Your task to perform on an android device: What's the weather going to be this weekend? Image 0: 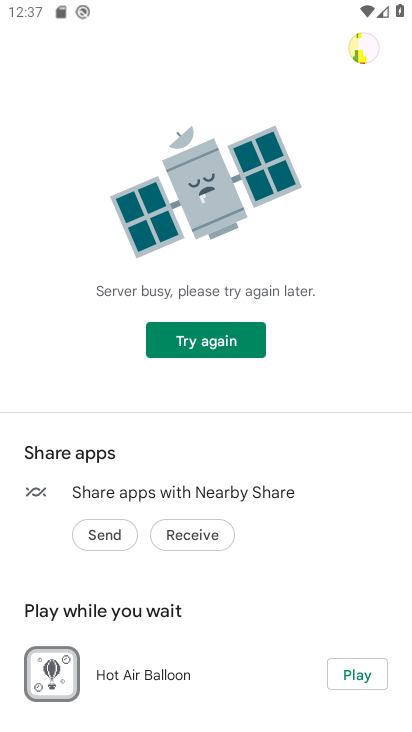
Step 0: press back button
Your task to perform on an android device: What's the weather going to be this weekend? Image 1: 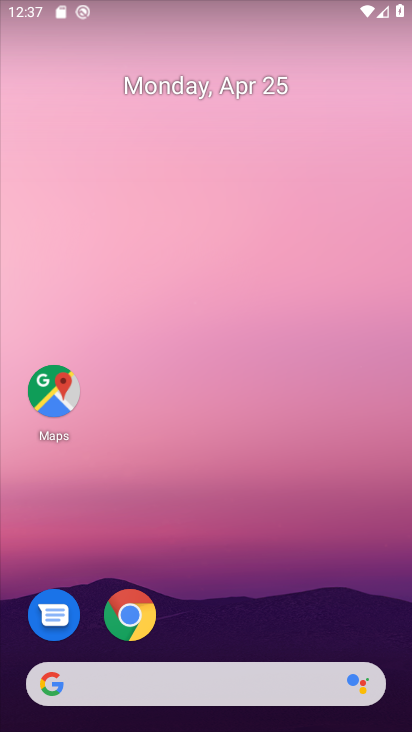
Step 1: drag from (1, 290) to (369, 281)
Your task to perform on an android device: What's the weather going to be this weekend? Image 2: 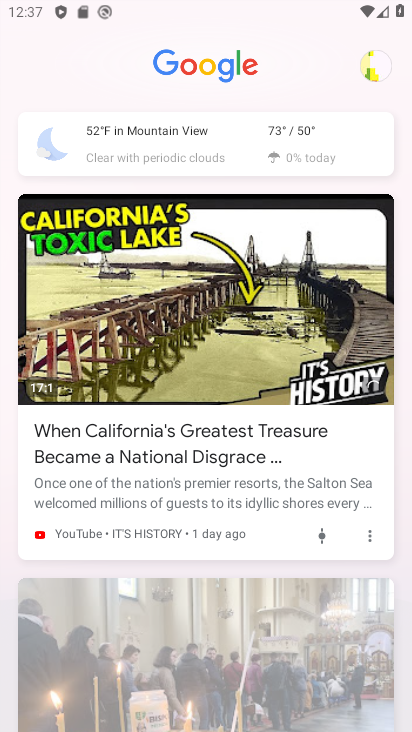
Step 2: click (268, 149)
Your task to perform on an android device: What's the weather going to be this weekend? Image 3: 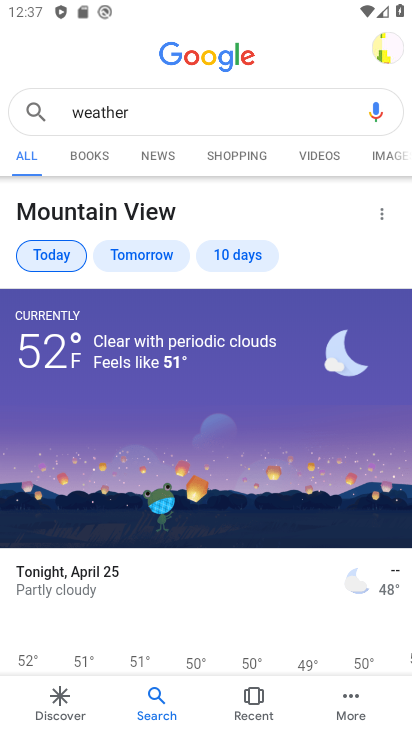
Step 3: click (229, 260)
Your task to perform on an android device: What's the weather going to be this weekend? Image 4: 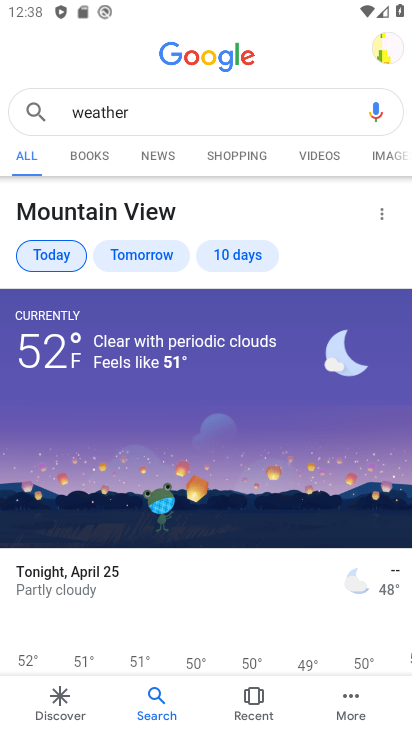
Step 4: click (168, 620)
Your task to perform on an android device: What's the weather going to be this weekend? Image 5: 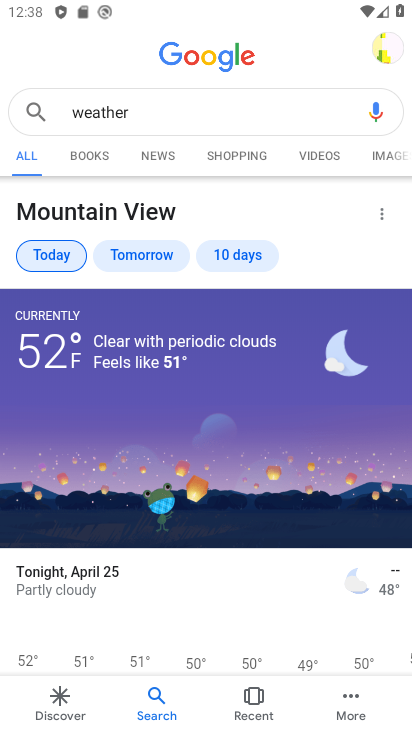
Step 5: drag from (182, 606) to (287, 198)
Your task to perform on an android device: What's the weather going to be this weekend? Image 6: 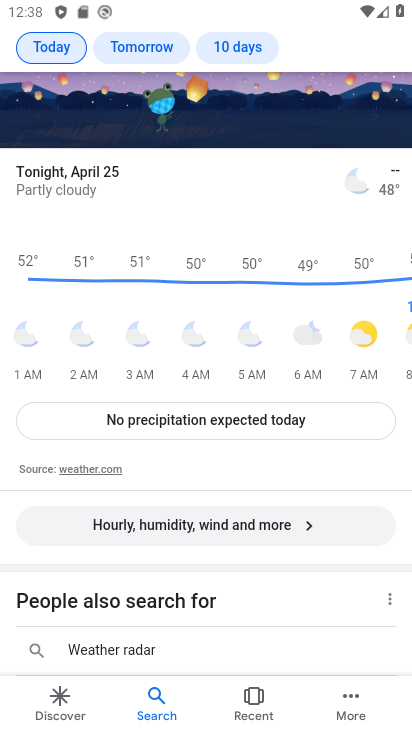
Step 6: drag from (185, 613) to (302, 239)
Your task to perform on an android device: What's the weather going to be this weekend? Image 7: 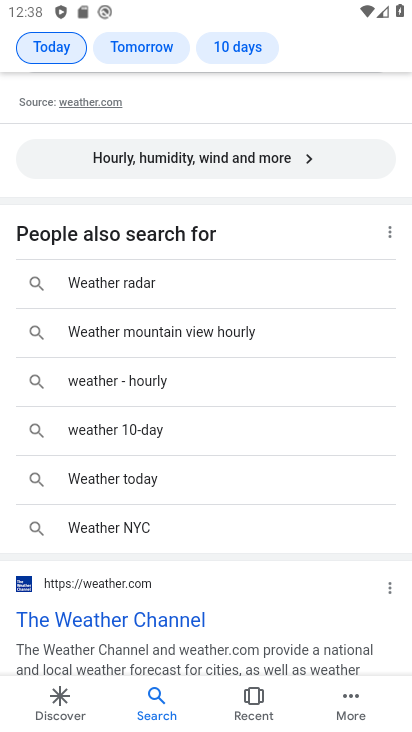
Step 7: drag from (284, 250) to (239, 684)
Your task to perform on an android device: What's the weather going to be this weekend? Image 8: 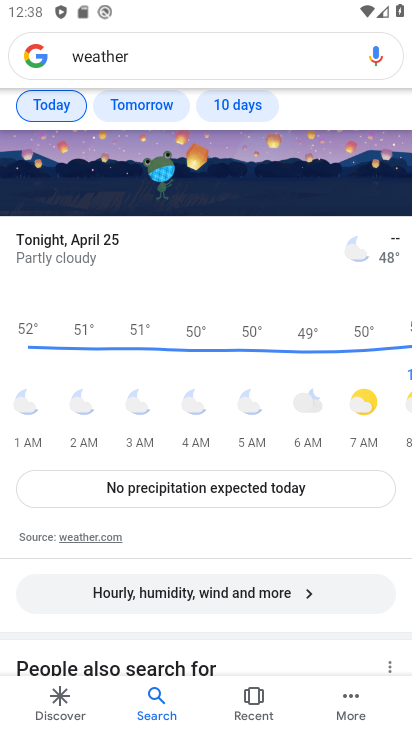
Step 8: drag from (235, 272) to (188, 604)
Your task to perform on an android device: What's the weather going to be this weekend? Image 9: 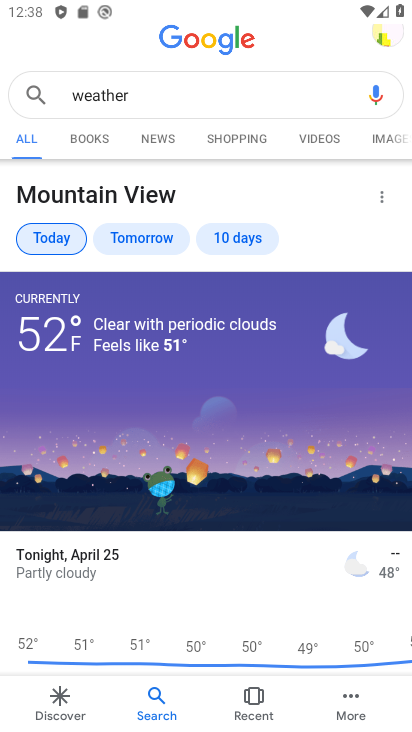
Step 9: click (24, 350)
Your task to perform on an android device: What's the weather going to be this weekend? Image 10: 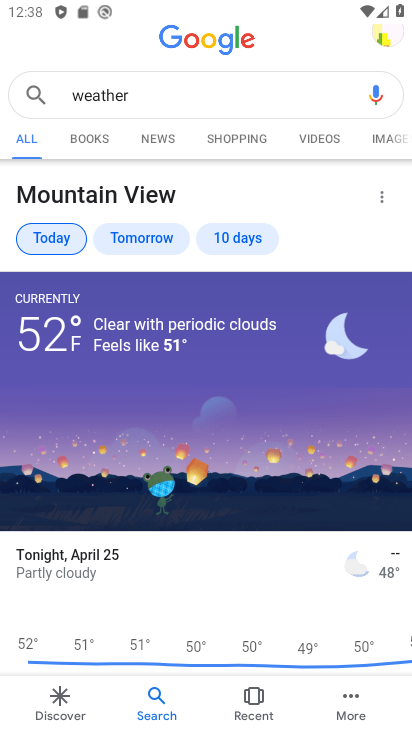
Step 10: click (161, 96)
Your task to perform on an android device: What's the weather going to be this weekend? Image 11: 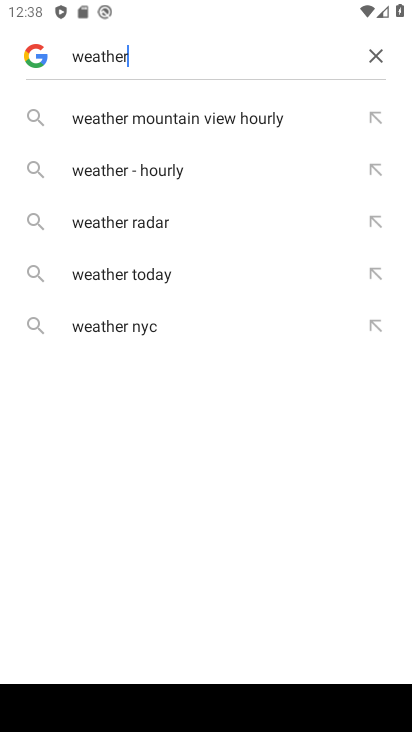
Step 11: type "for weekend"
Your task to perform on an android device: What's the weather going to be this weekend? Image 12: 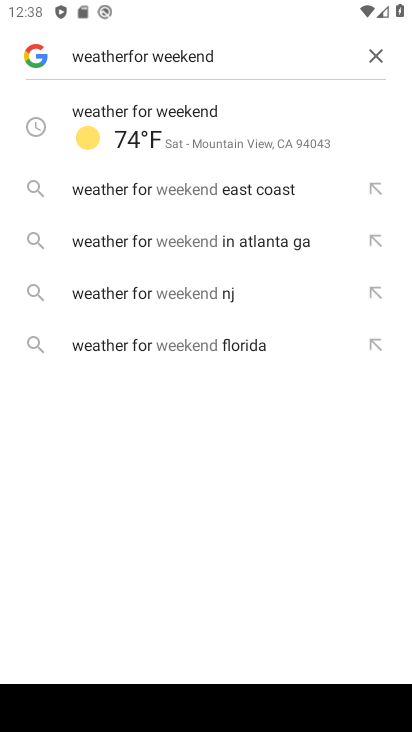
Step 12: click (172, 124)
Your task to perform on an android device: What's the weather going to be this weekend? Image 13: 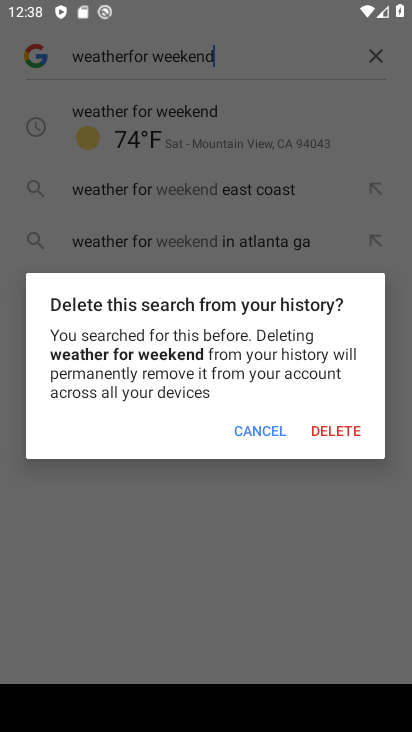
Step 13: click (262, 432)
Your task to perform on an android device: What's the weather going to be this weekend? Image 14: 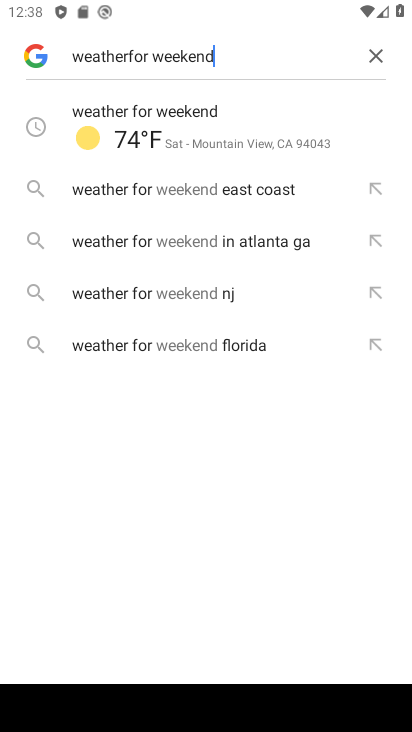
Step 14: click (310, 134)
Your task to perform on an android device: What's the weather going to be this weekend? Image 15: 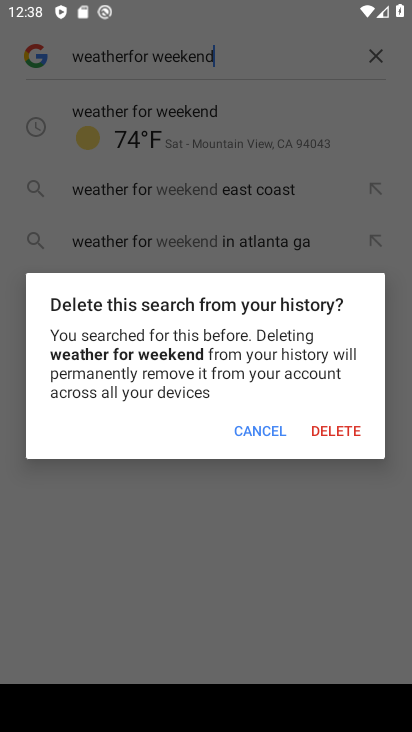
Step 15: click (264, 443)
Your task to perform on an android device: What's the weather going to be this weekend? Image 16: 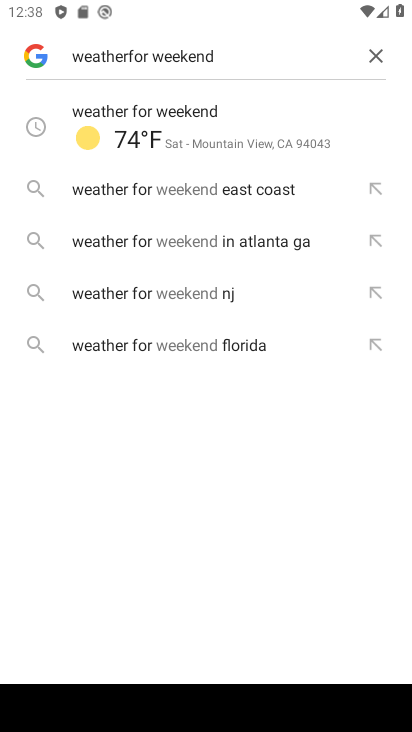
Step 16: click (250, 149)
Your task to perform on an android device: What's the weather going to be this weekend? Image 17: 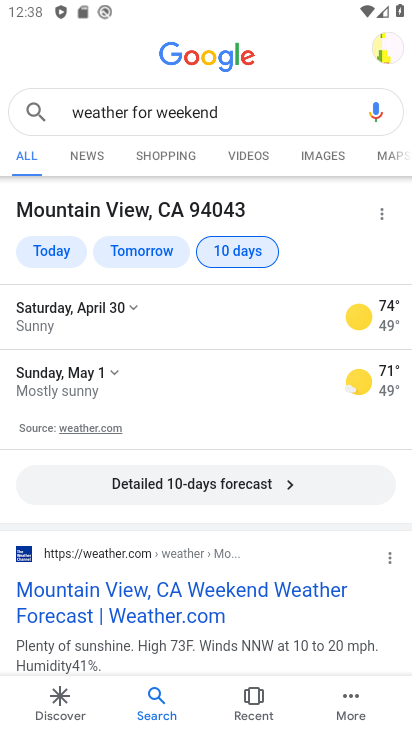
Step 17: task complete